Your task to perform on an android device: open app "Walmart Shopping & Grocery" Image 0: 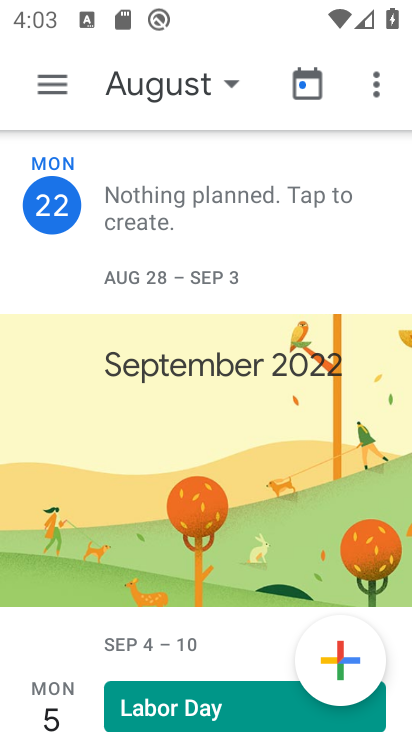
Step 0: press home button
Your task to perform on an android device: open app "Walmart Shopping & Grocery" Image 1: 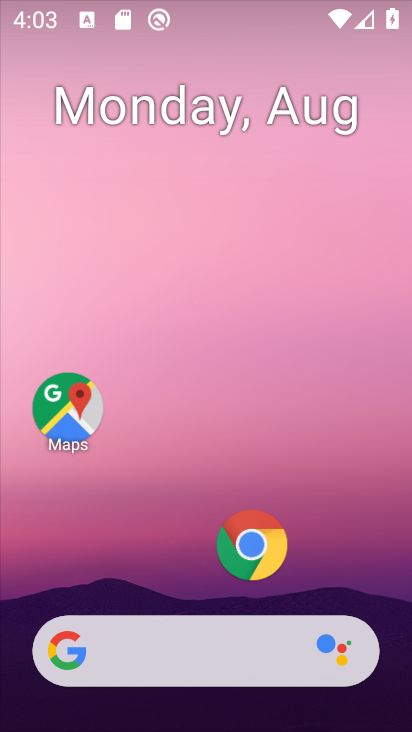
Step 1: drag from (188, 563) to (219, 15)
Your task to perform on an android device: open app "Walmart Shopping & Grocery" Image 2: 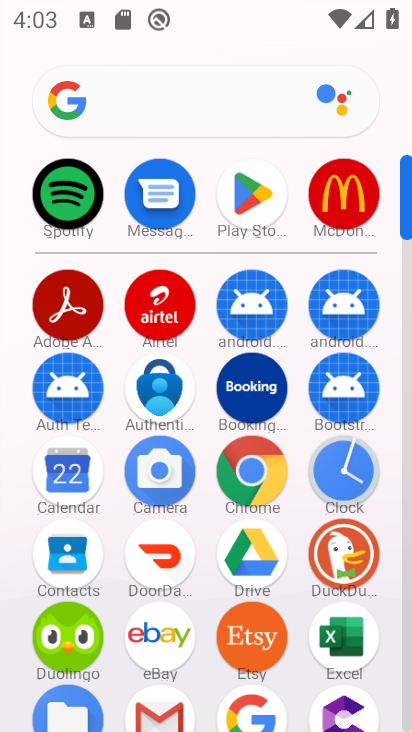
Step 2: click (234, 190)
Your task to perform on an android device: open app "Walmart Shopping & Grocery" Image 3: 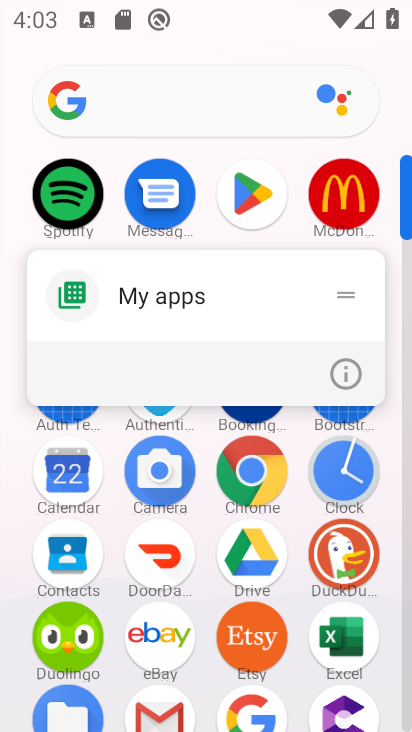
Step 3: click (250, 190)
Your task to perform on an android device: open app "Walmart Shopping & Grocery" Image 4: 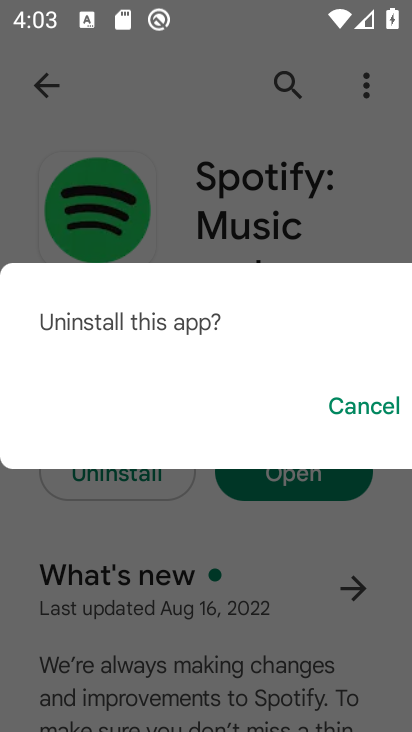
Step 4: click (353, 405)
Your task to perform on an android device: open app "Walmart Shopping & Grocery" Image 5: 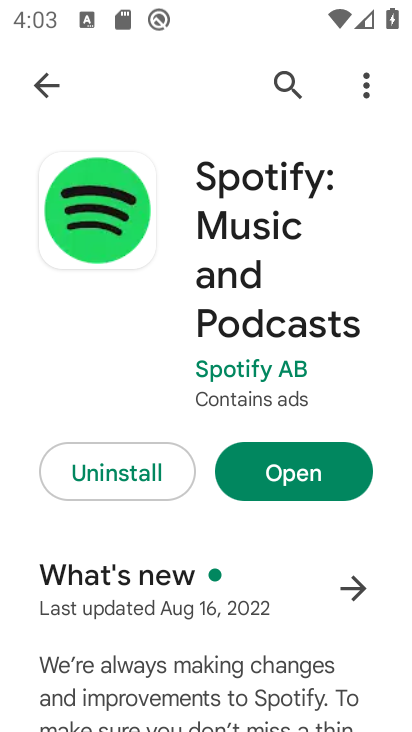
Step 5: click (281, 83)
Your task to perform on an android device: open app "Walmart Shopping & Grocery" Image 6: 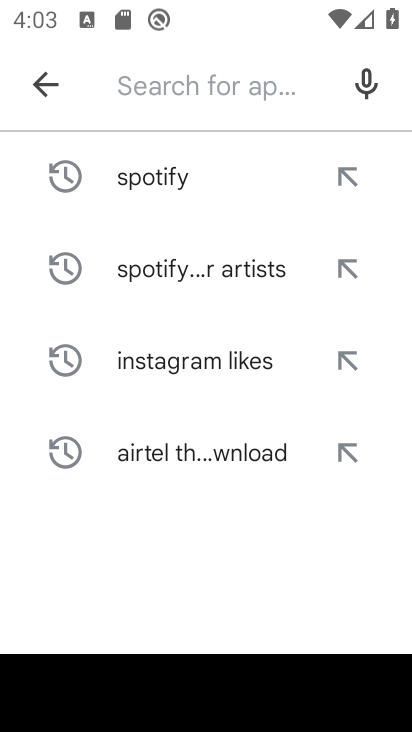
Step 6: click (145, 75)
Your task to perform on an android device: open app "Walmart Shopping & Grocery" Image 7: 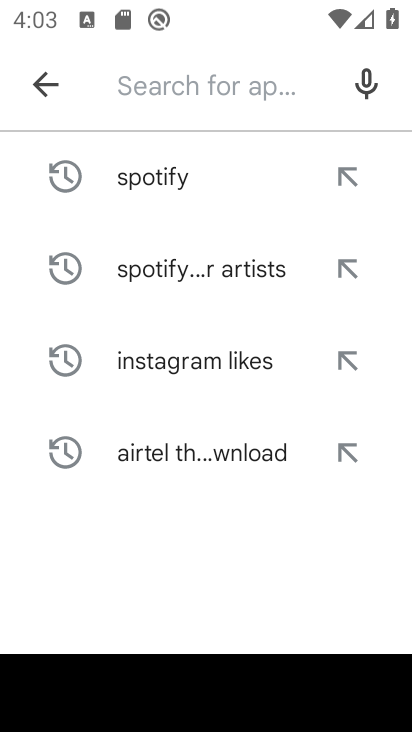
Step 7: type "Walmart Shopping & Grocery"
Your task to perform on an android device: open app "Walmart Shopping & Grocery" Image 8: 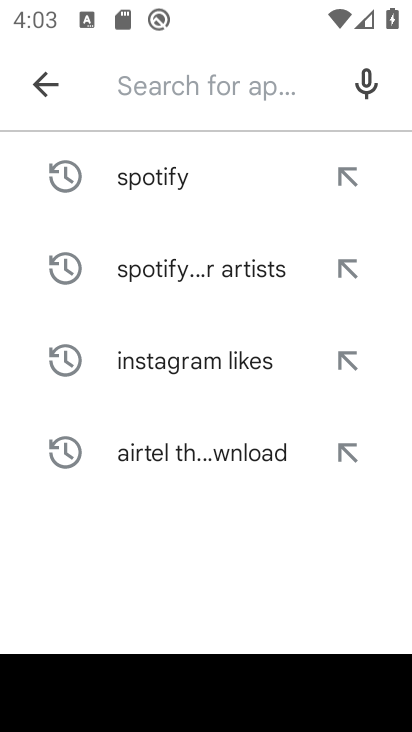
Step 8: click (206, 572)
Your task to perform on an android device: open app "Walmart Shopping & Grocery" Image 9: 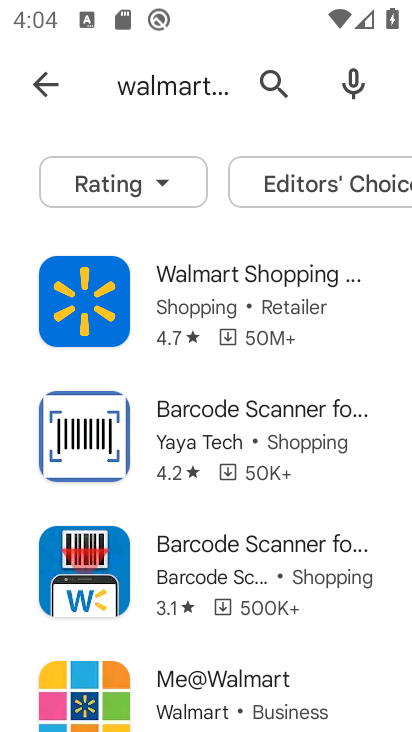
Step 9: click (198, 307)
Your task to perform on an android device: open app "Walmart Shopping & Grocery" Image 10: 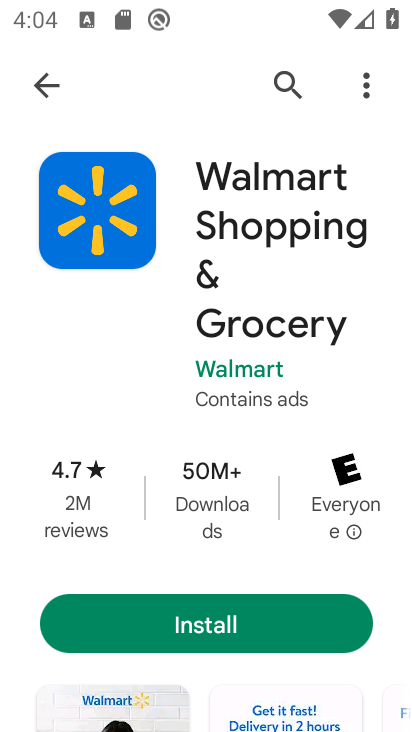
Step 10: task complete